Your task to perform on an android device: find snoozed emails in the gmail app Image 0: 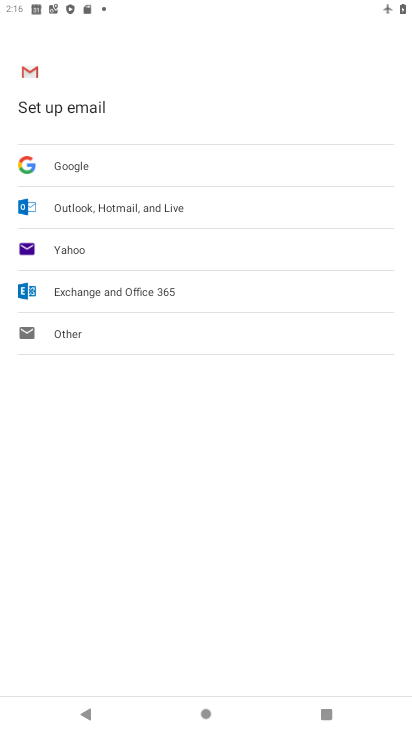
Step 0: press home button
Your task to perform on an android device: find snoozed emails in the gmail app Image 1: 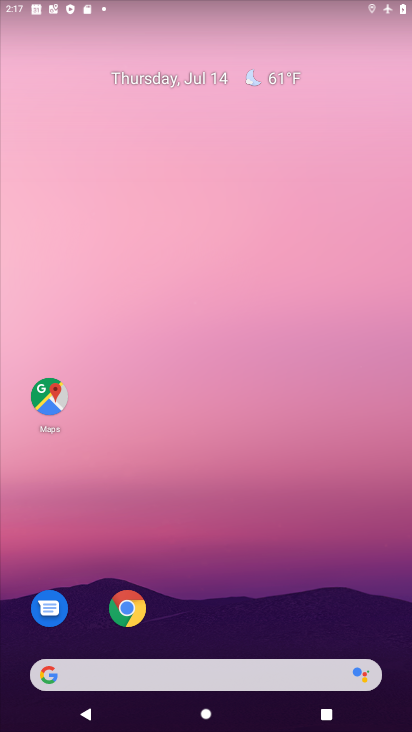
Step 1: drag from (228, 671) to (221, 259)
Your task to perform on an android device: find snoozed emails in the gmail app Image 2: 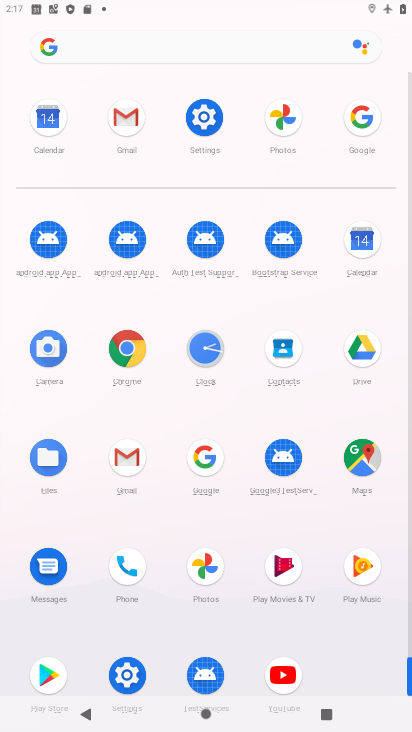
Step 2: click (128, 118)
Your task to perform on an android device: find snoozed emails in the gmail app Image 3: 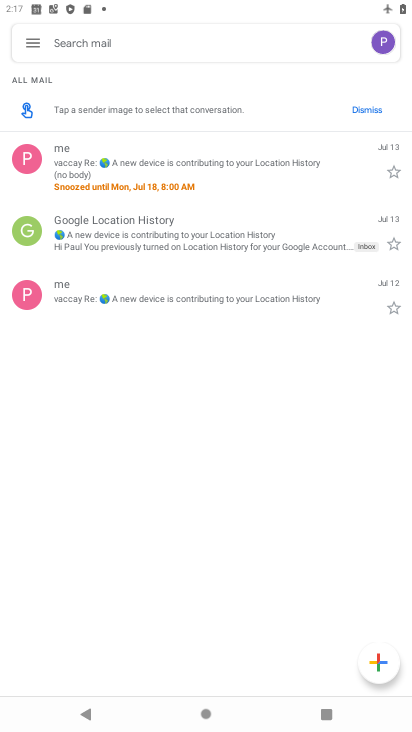
Step 3: task complete